Your task to perform on an android device: Open Google Maps and go to "Timeline" Image 0: 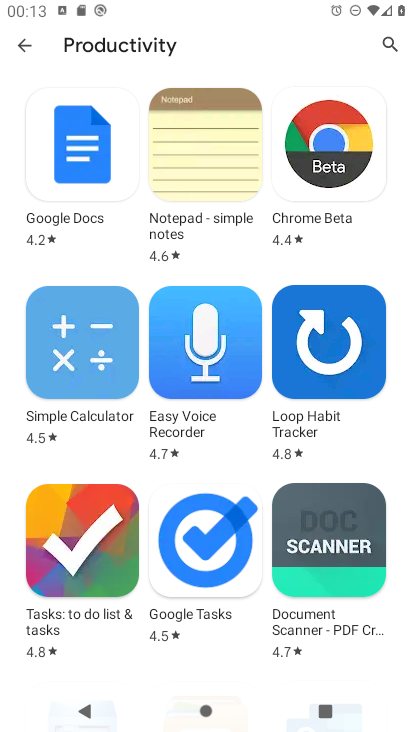
Step 0: press home button
Your task to perform on an android device: Open Google Maps and go to "Timeline" Image 1: 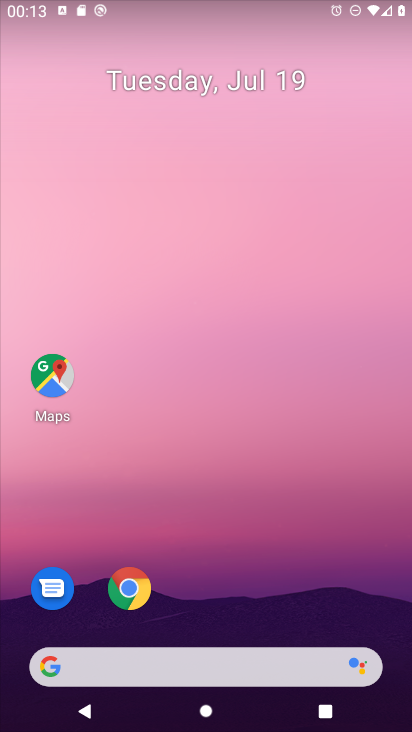
Step 1: click (52, 376)
Your task to perform on an android device: Open Google Maps and go to "Timeline" Image 2: 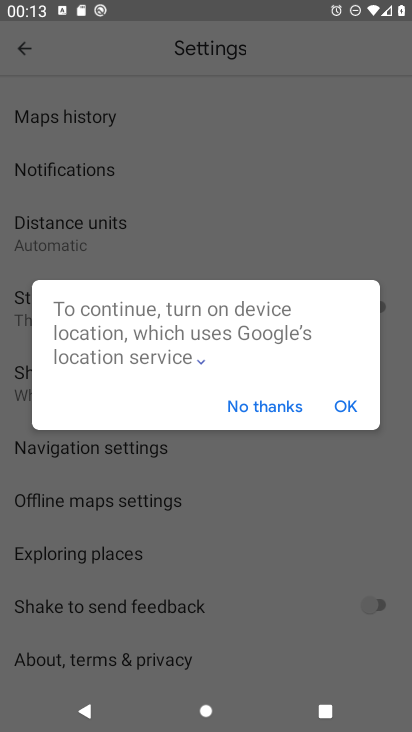
Step 2: click (344, 399)
Your task to perform on an android device: Open Google Maps and go to "Timeline" Image 3: 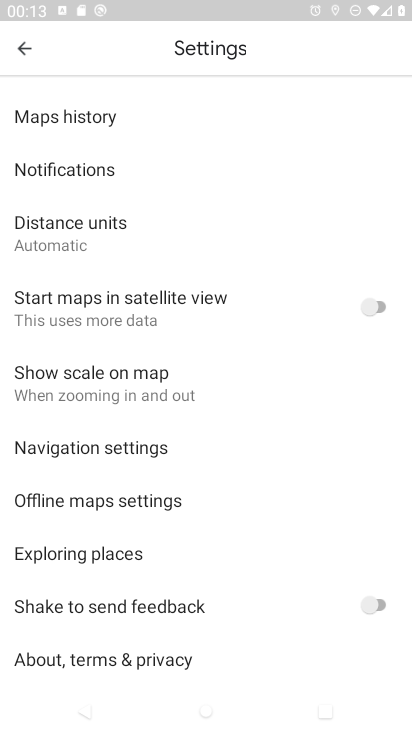
Step 3: press back button
Your task to perform on an android device: Open Google Maps and go to "Timeline" Image 4: 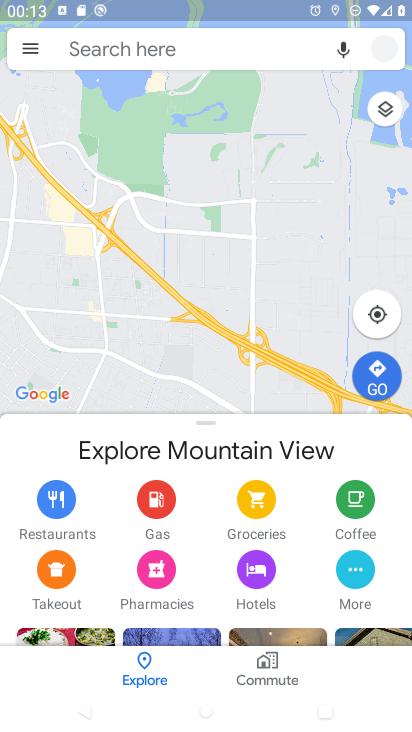
Step 4: click (32, 49)
Your task to perform on an android device: Open Google Maps and go to "Timeline" Image 5: 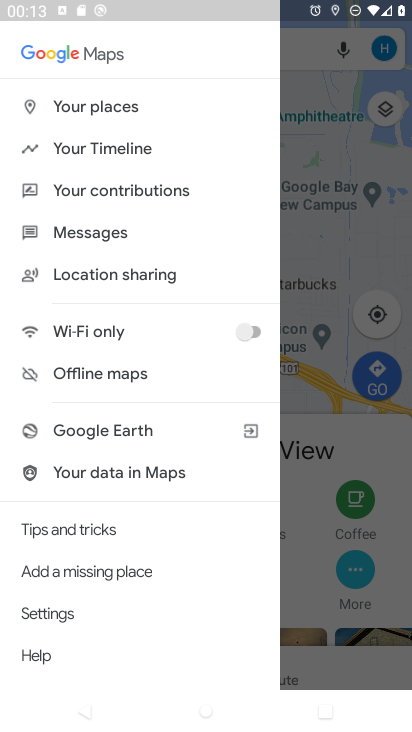
Step 5: click (103, 149)
Your task to perform on an android device: Open Google Maps and go to "Timeline" Image 6: 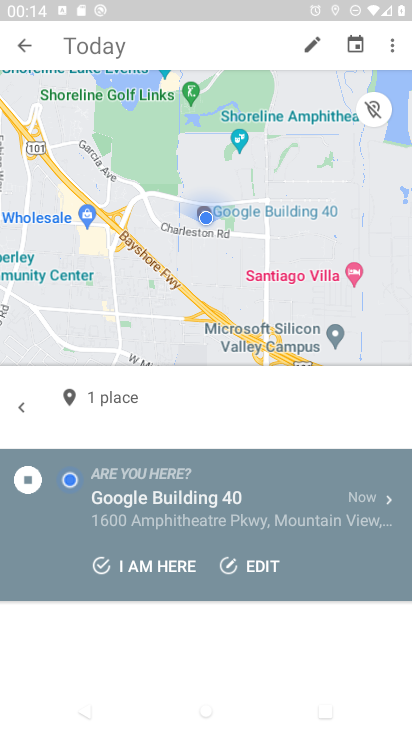
Step 6: task complete